Your task to perform on an android device: Open Yahoo.com Image 0: 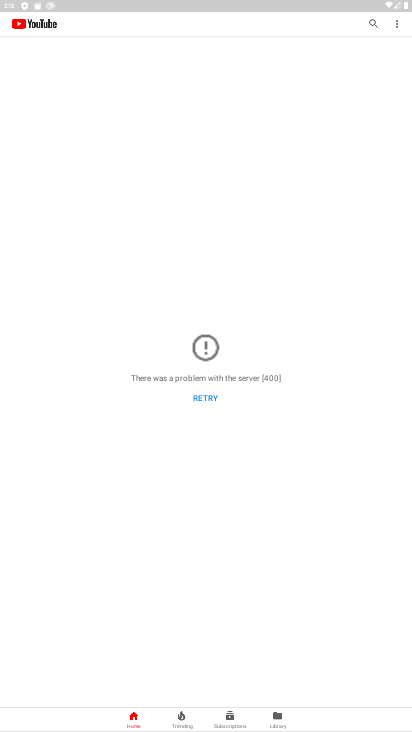
Step 0: press home button
Your task to perform on an android device: Open Yahoo.com Image 1: 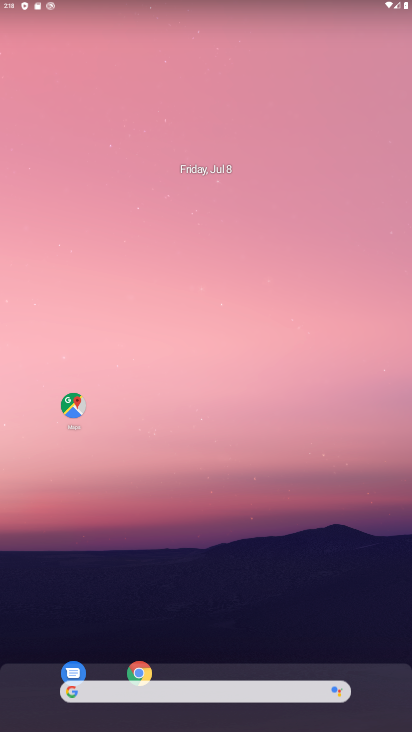
Step 1: click (137, 668)
Your task to perform on an android device: Open Yahoo.com Image 2: 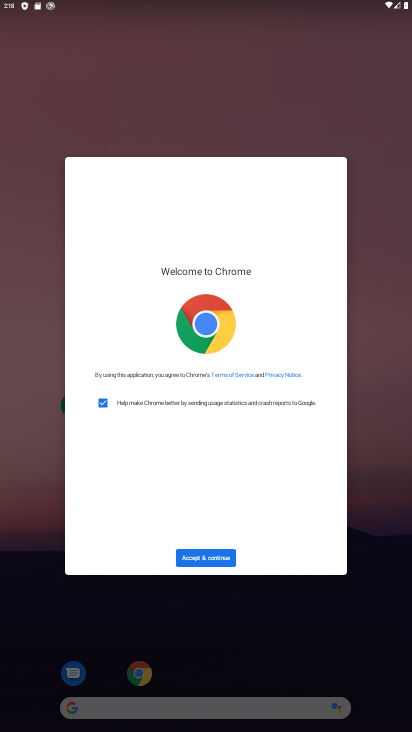
Step 2: click (210, 561)
Your task to perform on an android device: Open Yahoo.com Image 3: 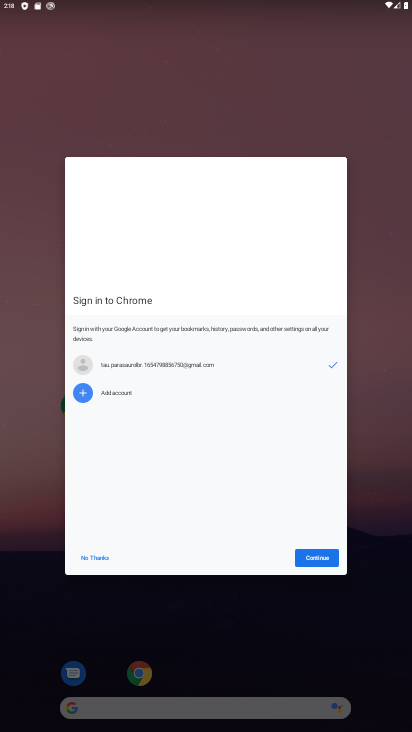
Step 3: click (311, 561)
Your task to perform on an android device: Open Yahoo.com Image 4: 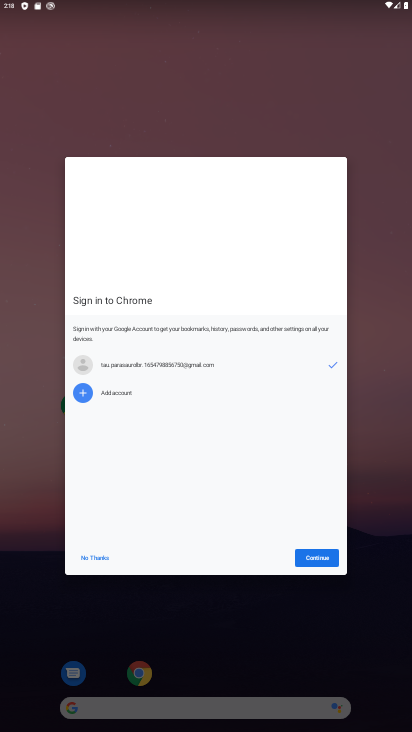
Step 4: click (311, 561)
Your task to perform on an android device: Open Yahoo.com Image 5: 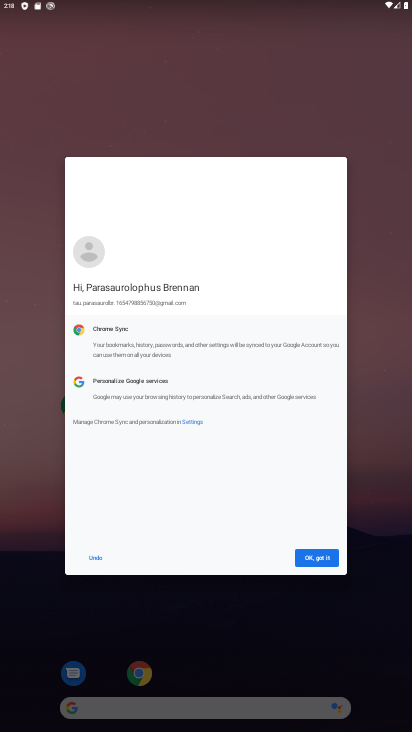
Step 5: click (311, 561)
Your task to perform on an android device: Open Yahoo.com Image 6: 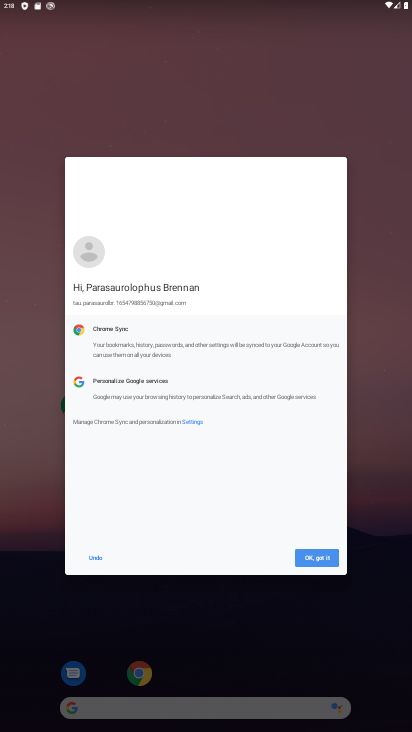
Step 6: click (311, 561)
Your task to perform on an android device: Open Yahoo.com Image 7: 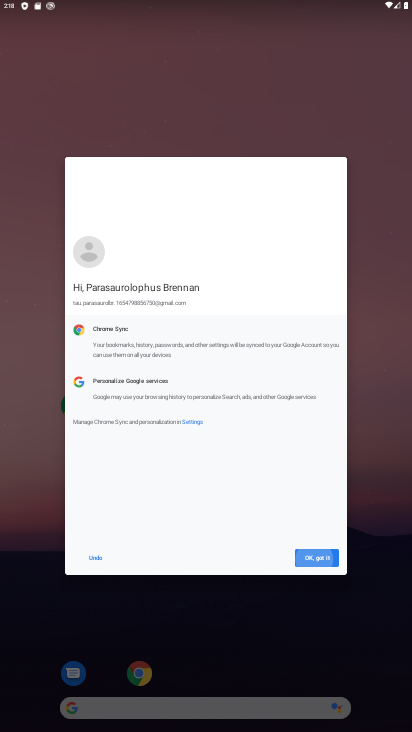
Step 7: click (311, 561)
Your task to perform on an android device: Open Yahoo.com Image 8: 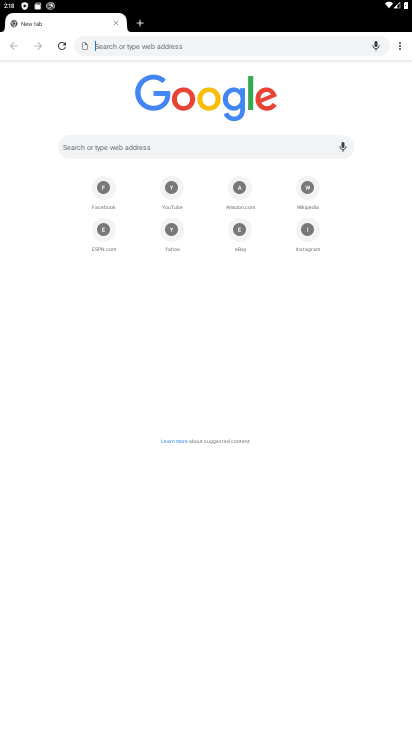
Step 8: click (176, 48)
Your task to perform on an android device: Open Yahoo.com Image 9: 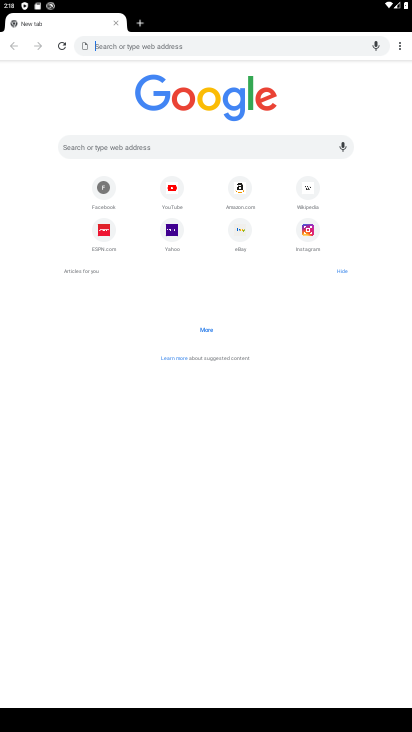
Step 9: type "Yahoo.com"
Your task to perform on an android device: Open Yahoo.com Image 10: 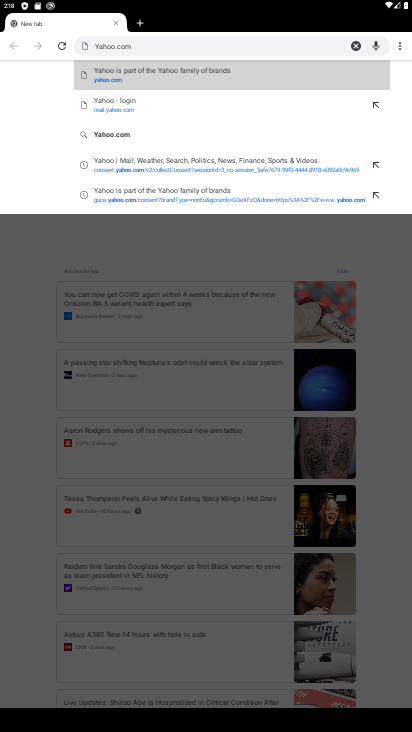
Step 10: click (129, 94)
Your task to perform on an android device: Open Yahoo.com Image 11: 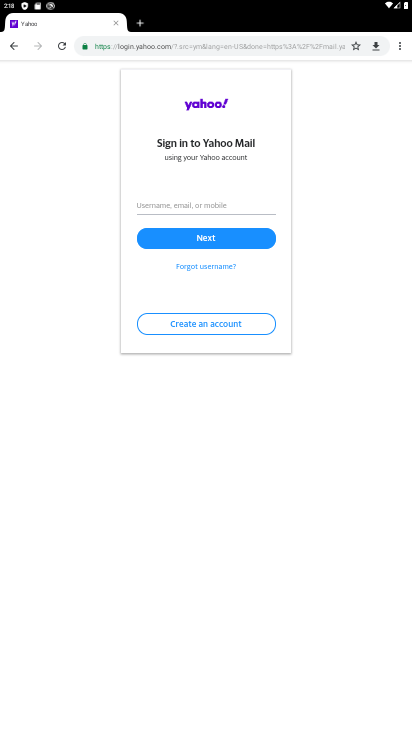
Step 11: task complete